Your task to perform on an android device: Open the Play Movies app and select the watchlist tab. Image 0: 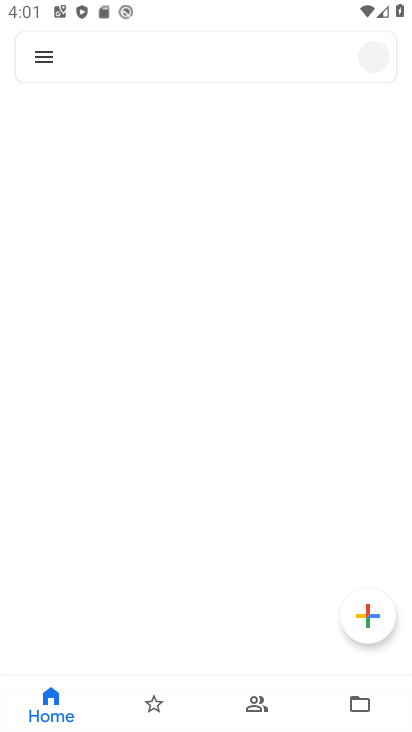
Step 0: drag from (240, 679) to (221, 98)
Your task to perform on an android device: Open the Play Movies app and select the watchlist tab. Image 1: 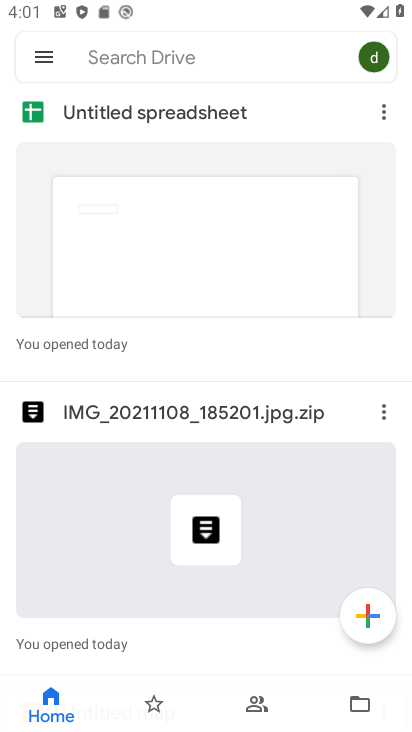
Step 1: press back button
Your task to perform on an android device: Open the Play Movies app and select the watchlist tab. Image 2: 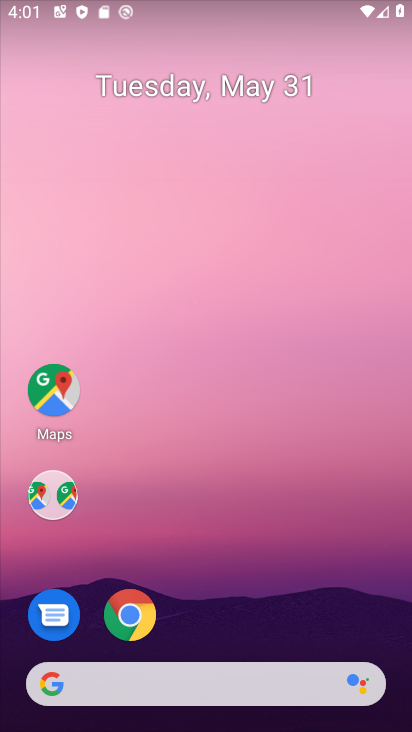
Step 2: drag from (245, 702) to (186, 76)
Your task to perform on an android device: Open the Play Movies app and select the watchlist tab. Image 3: 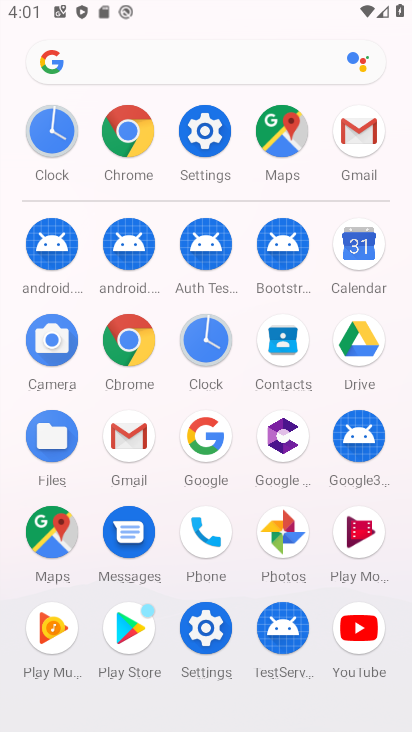
Step 3: click (354, 552)
Your task to perform on an android device: Open the Play Movies app and select the watchlist tab. Image 4: 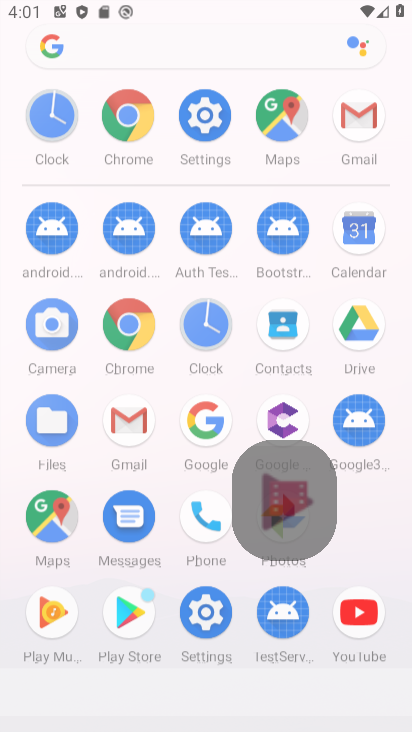
Step 4: click (353, 540)
Your task to perform on an android device: Open the Play Movies app and select the watchlist tab. Image 5: 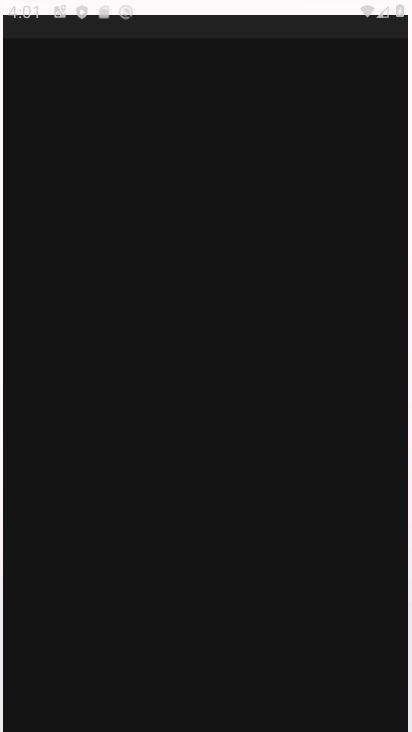
Step 5: click (353, 540)
Your task to perform on an android device: Open the Play Movies app and select the watchlist tab. Image 6: 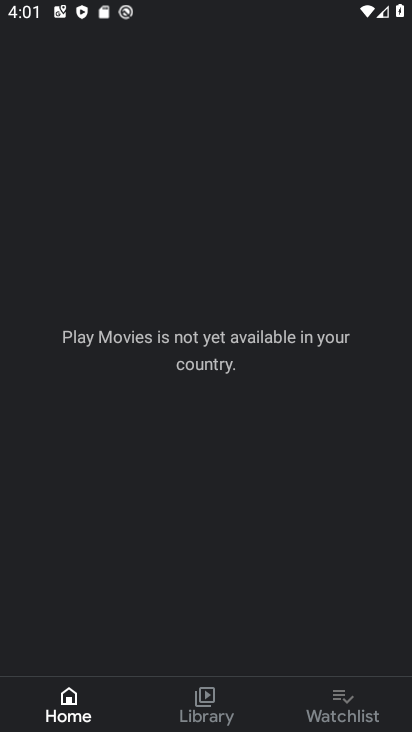
Step 6: click (340, 704)
Your task to perform on an android device: Open the Play Movies app and select the watchlist tab. Image 7: 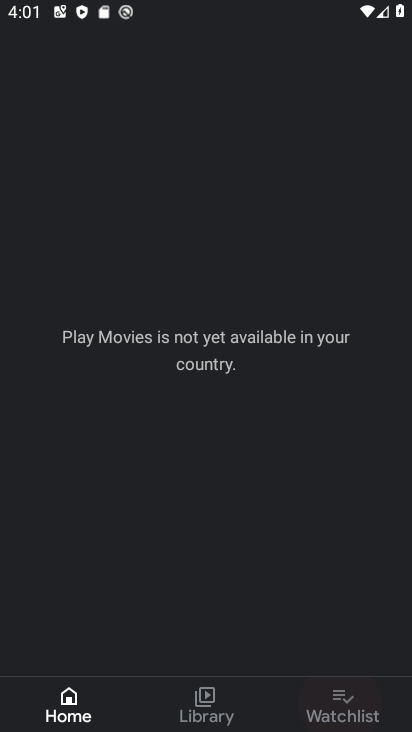
Step 7: click (340, 704)
Your task to perform on an android device: Open the Play Movies app and select the watchlist tab. Image 8: 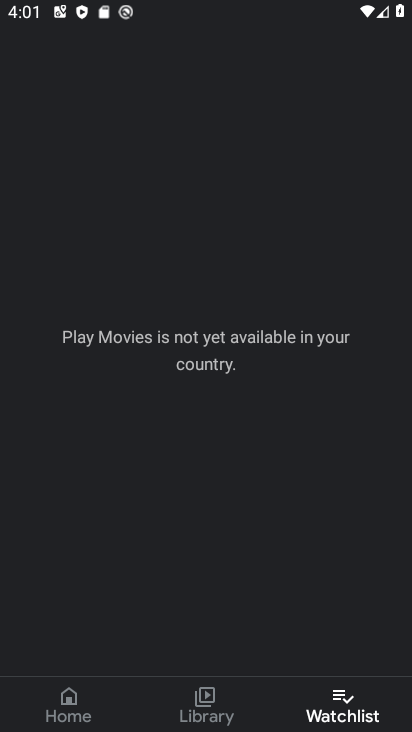
Step 8: click (340, 704)
Your task to perform on an android device: Open the Play Movies app and select the watchlist tab. Image 9: 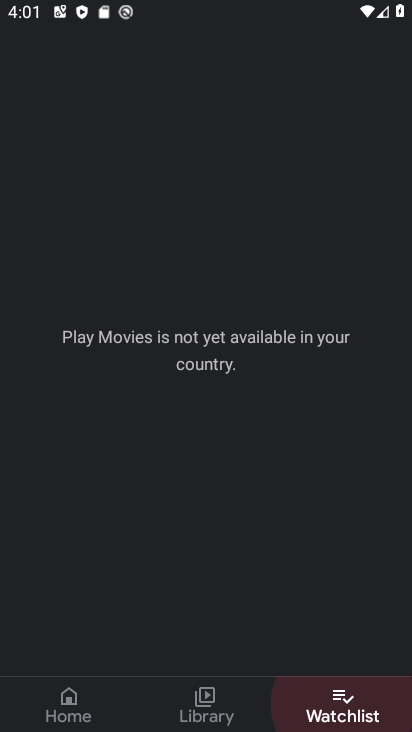
Step 9: click (342, 706)
Your task to perform on an android device: Open the Play Movies app and select the watchlist tab. Image 10: 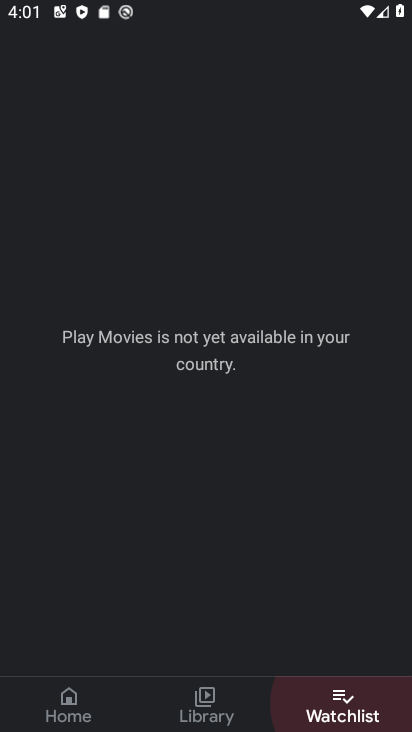
Step 10: click (342, 706)
Your task to perform on an android device: Open the Play Movies app and select the watchlist tab. Image 11: 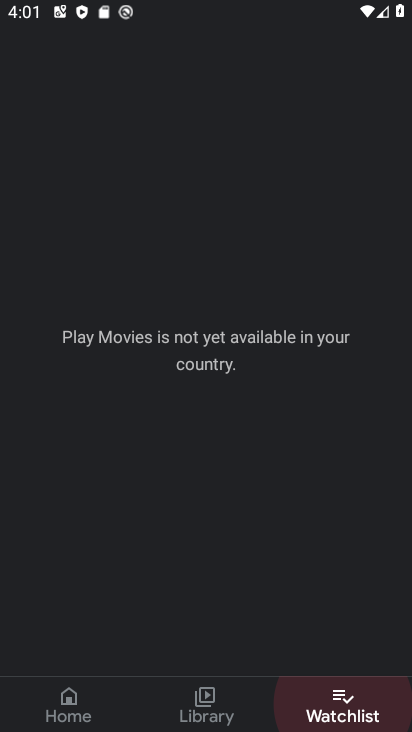
Step 11: click (342, 706)
Your task to perform on an android device: Open the Play Movies app and select the watchlist tab. Image 12: 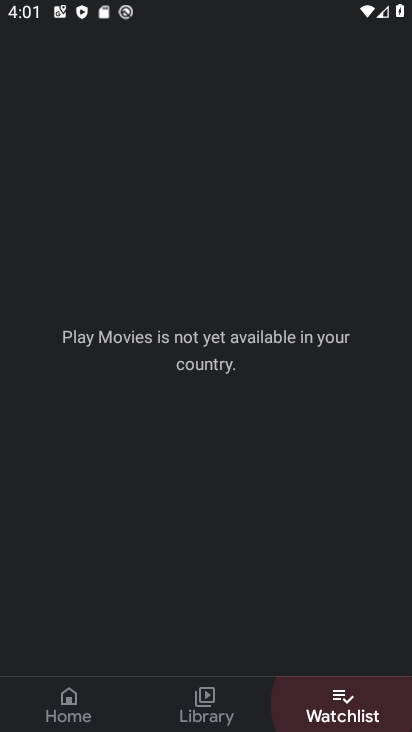
Step 12: click (341, 706)
Your task to perform on an android device: Open the Play Movies app and select the watchlist tab. Image 13: 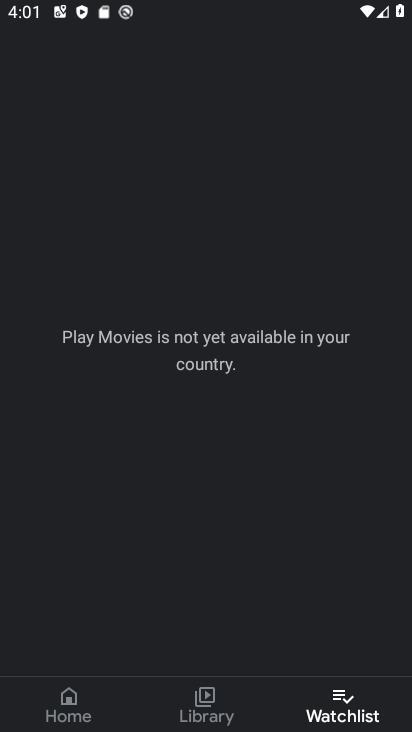
Step 13: task complete